Your task to perform on an android device: Is it going to rain tomorrow? Image 0: 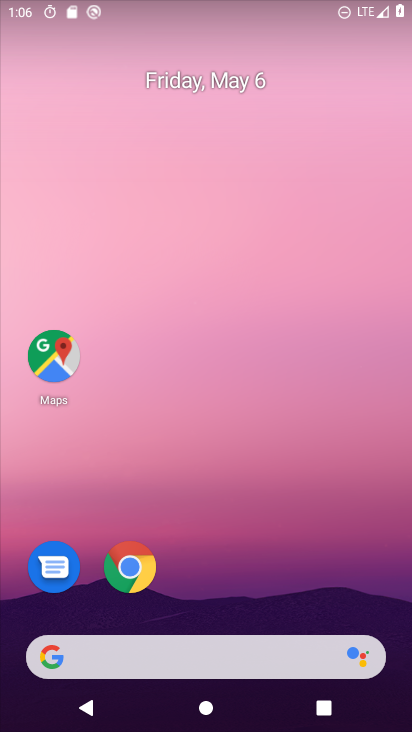
Step 0: click (132, 664)
Your task to perform on an android device: Is it going to rain tomorrow? Image 1: 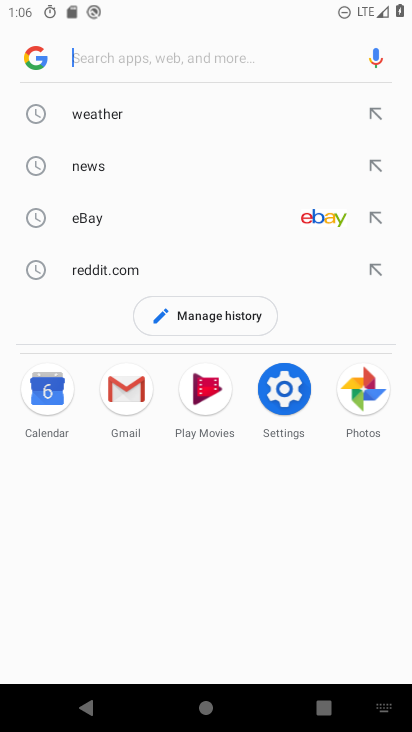
Step 1: click (92, 122)
Your task to perform on an android device: Is it going to rain tomorrow? Image 2: 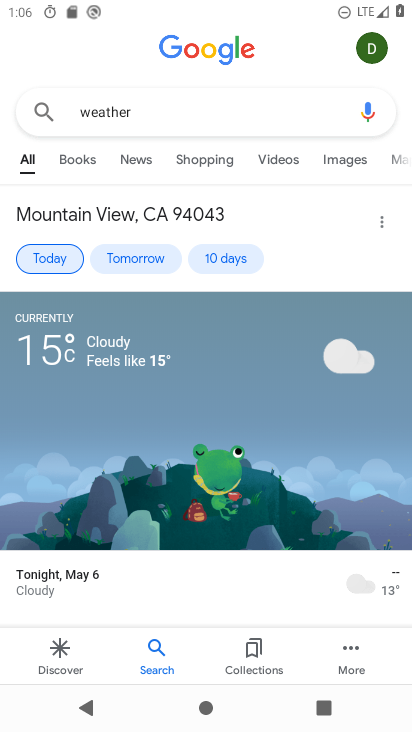
Step 2: click (143, 261)
Your task to perform on an android device: Is it going to rain tomorrow? Image 3: 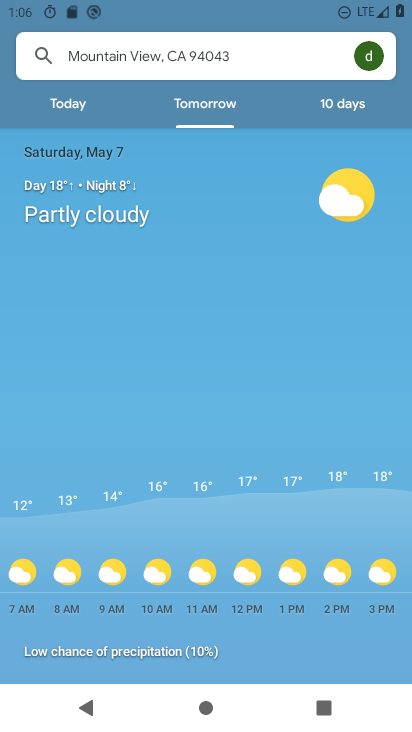
Step 3: task complete